Your task to perform on an android device: see creations saved in the google photos Image 0: 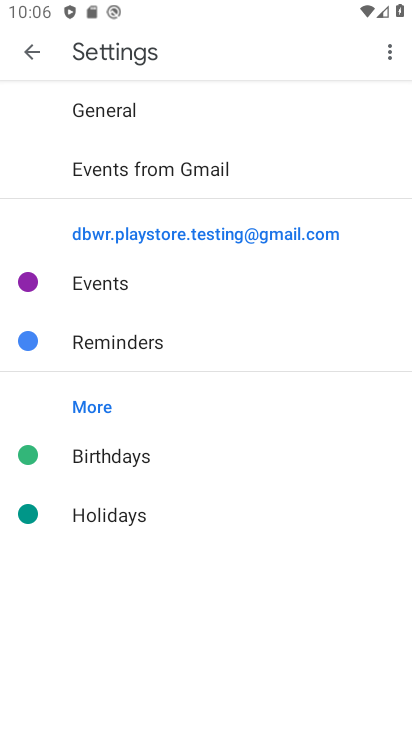
Step 0: press home button
Your task to perform on an android device: see creations saved in the google photos Image 1: 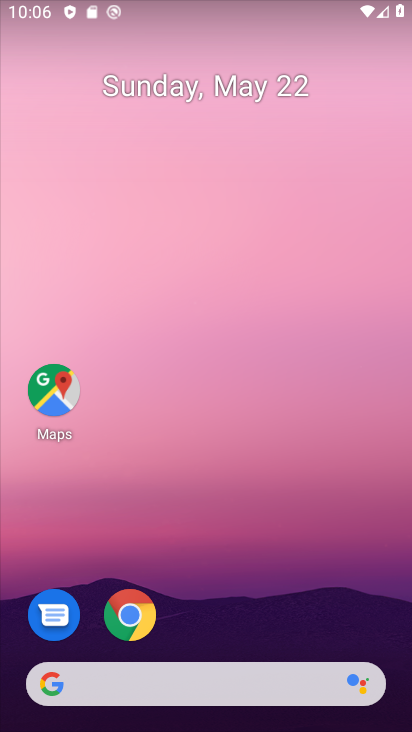
Step 1: drag from (246, 636) to (178, 16)
Your task to perform on an android device: see creations saved in the google photos Image 2: 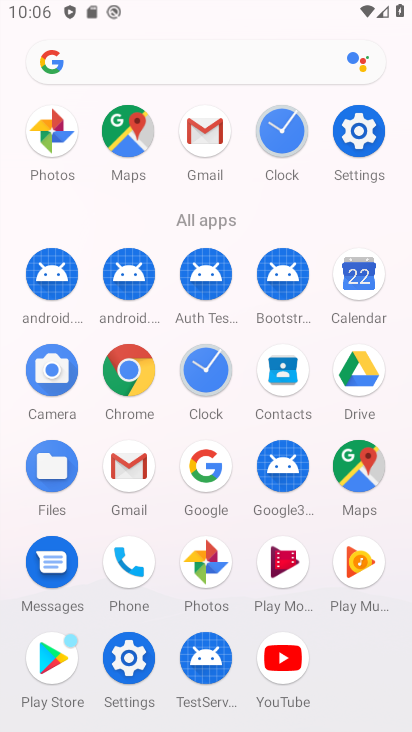
Step 2: click (44, 121)
Your task to perform on an android device: see creations saved in the google photos Image 3: 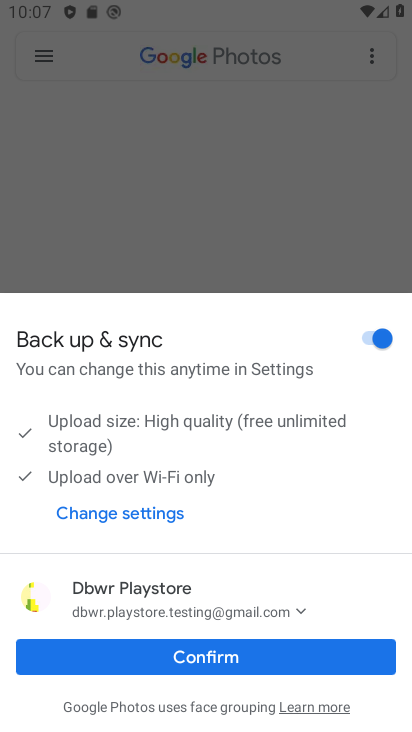
Step 3: click (194, 662)
Your task to perform on an android device: see creations saved in the google photos Image 4: 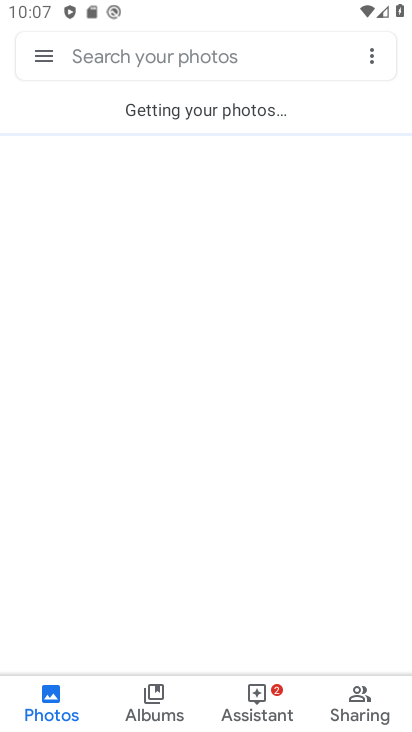
Step 4: click (219, 68)
Your task to perform on an android device: see creations saved in the google photos Image 5: 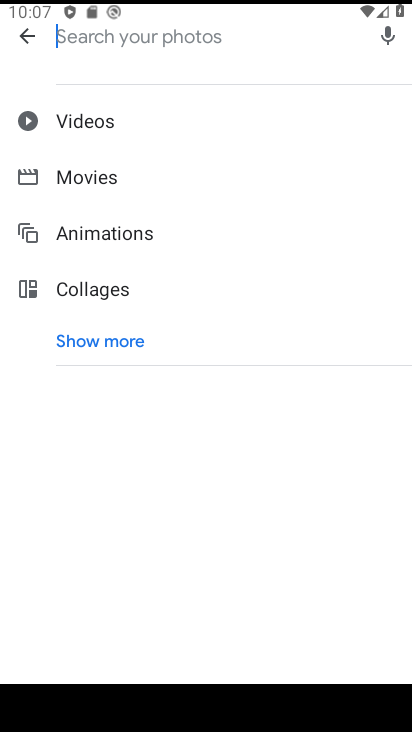
Step 5: click (119, 332)
Your task to perform on an android device: see creations saved in the google photos Image 6: 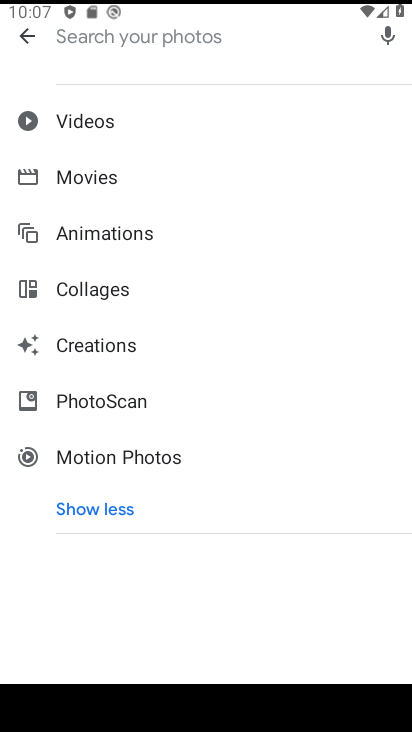
Step 6: click (96, 507)
Your task to perform on an android device: see creations saved in the google photos Image 7: 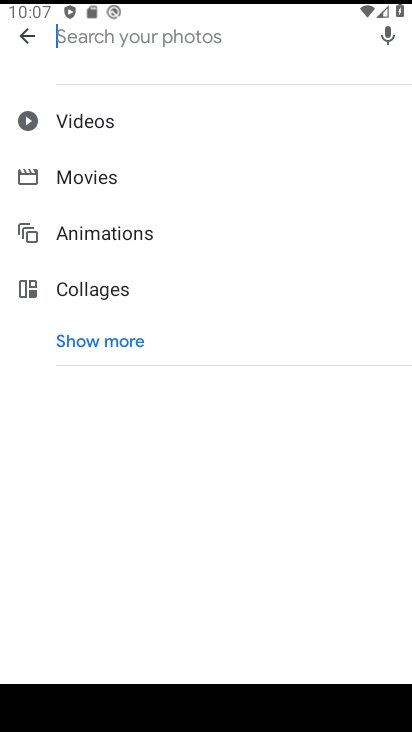
Step 7: click (85, 348)
Your task to perform on an android device: see creations saved in the google photos Image 8: 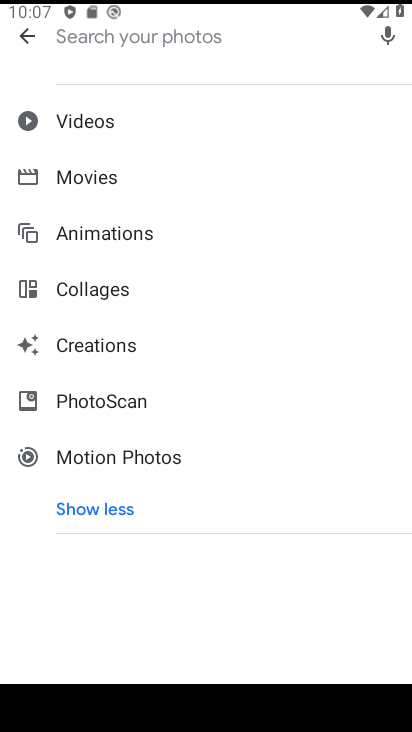
Step 8: click (85, 348)
Your task to perform on an android device: see creations saved in the google photos Image 9: 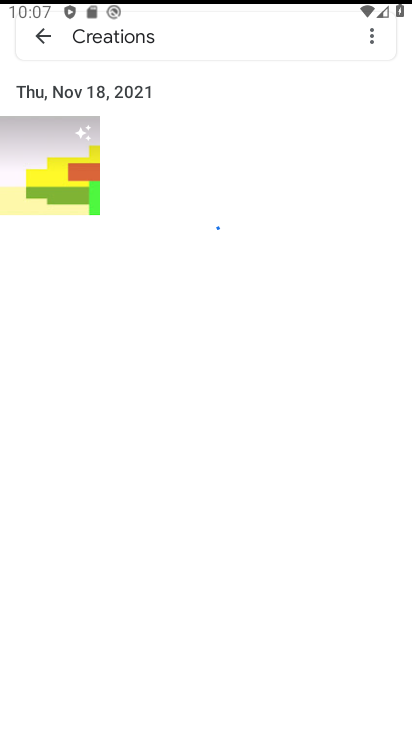
Step 9: task complete